Your task to perform on an android device: delete the emails in spam in the gmail app Image 0: 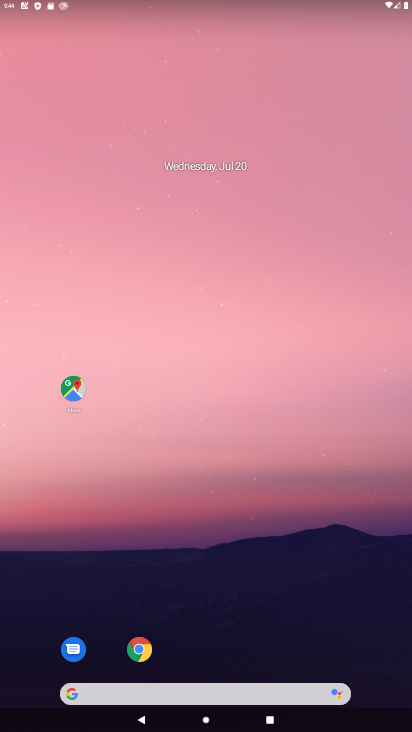
Step 0: drag from (307, 643) to (266, 77)
Your task to perform on an android device: delete the emails in spam in the gmail app Image 1: 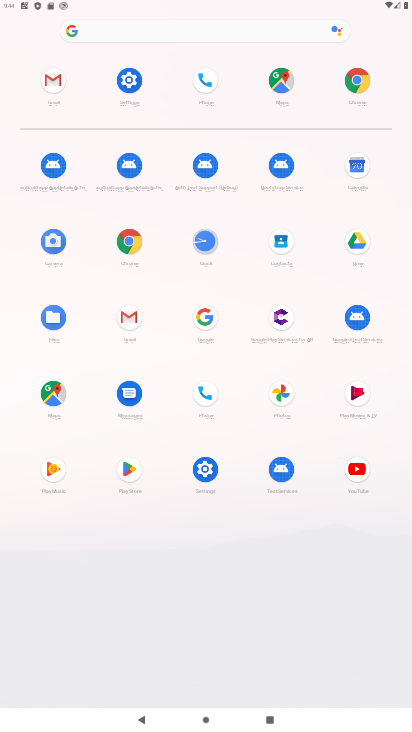
Step 1: click (47, 80)
Your task to perform on an android device: delete the emails in spam in the gmail app Image 2: 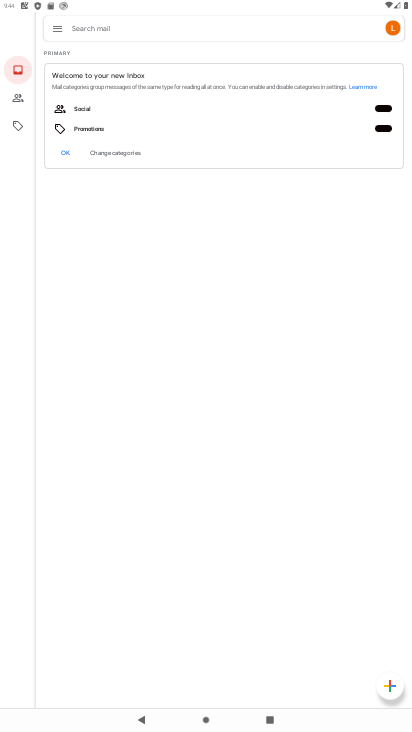
Step 2: task complete